Your task to perform on an android device: Show the shopping cart on walmart. Add "amazon basics triple a" to the cart on walmart Image 0: 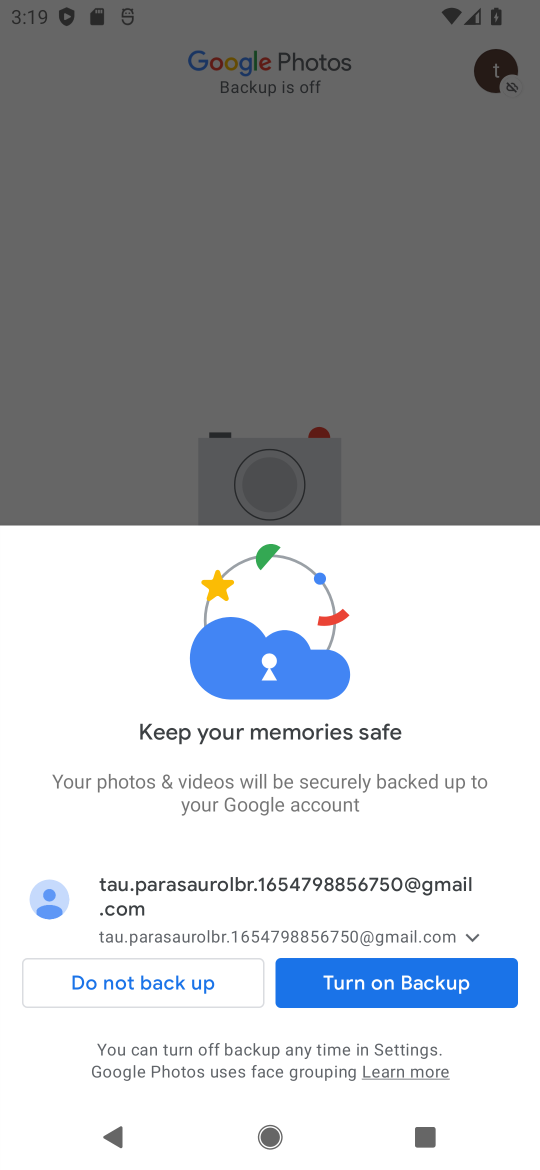
Step 0: press home button
Your task to perform on an android device: Show the shopping cart on walmart. Add "amazon basics triple a" to the cart on walmart Image 1: 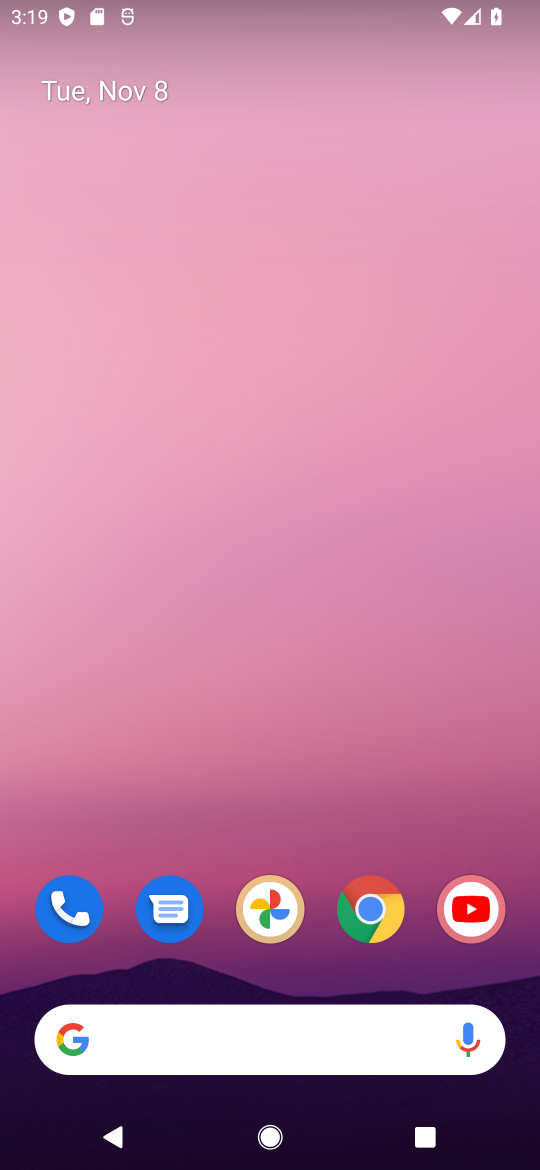
Step 1: click (375, 914)
Your task to perform on an android device: Show the shopping cart on walmart. Add "amazon basics triple a" to the cart on walmart Image 2: 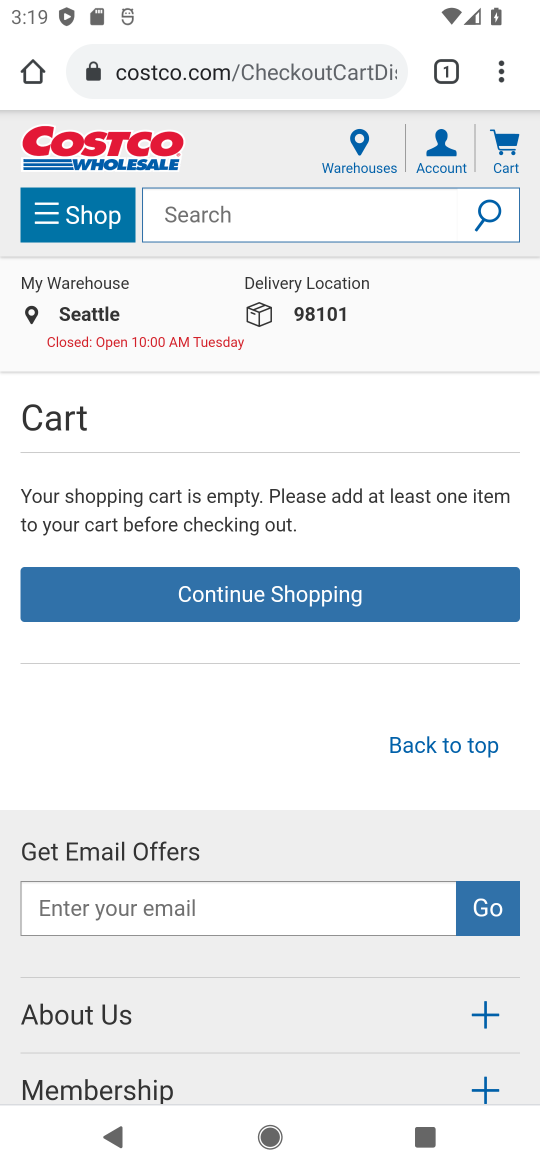
Step 2: click (291, 63)
Your task to perform on an android device: Show the shopping cart on walmart. Add "amazon basics triple a" to the cart on walmart Image 3: 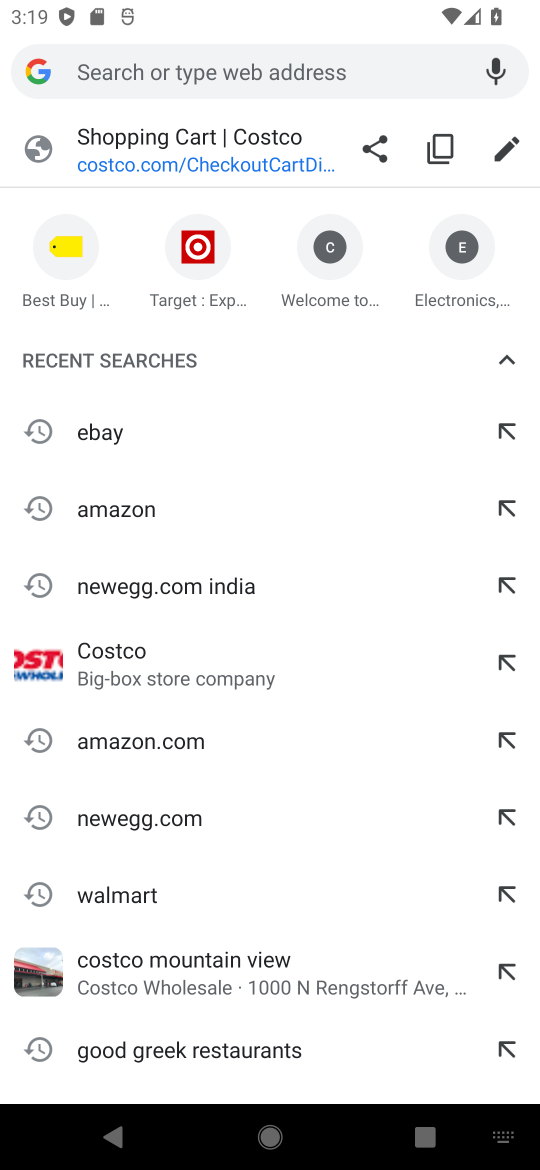
Step 3: click (137, 894)
Your task to perform on an android device: Show the shopping cart on walmart. Add "amazon basics triple a" to the cart on walmart Image 4: 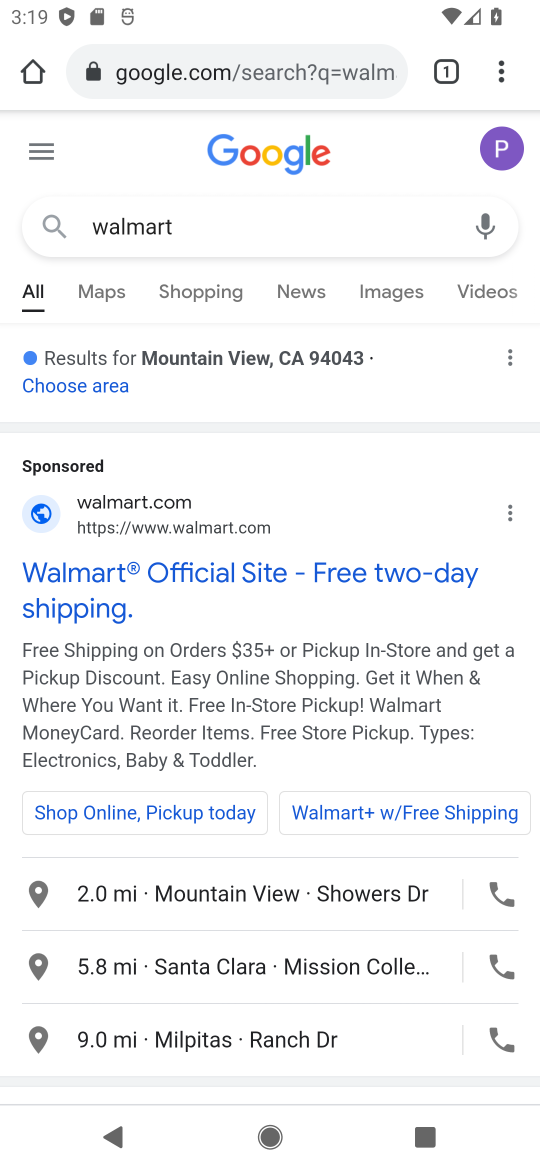
Step 4: click (242, 564)
Your task to perform on an android device: Show the shopping cart on walmart. Add "amazon basics triple a" to the cart on walmart Image 5: 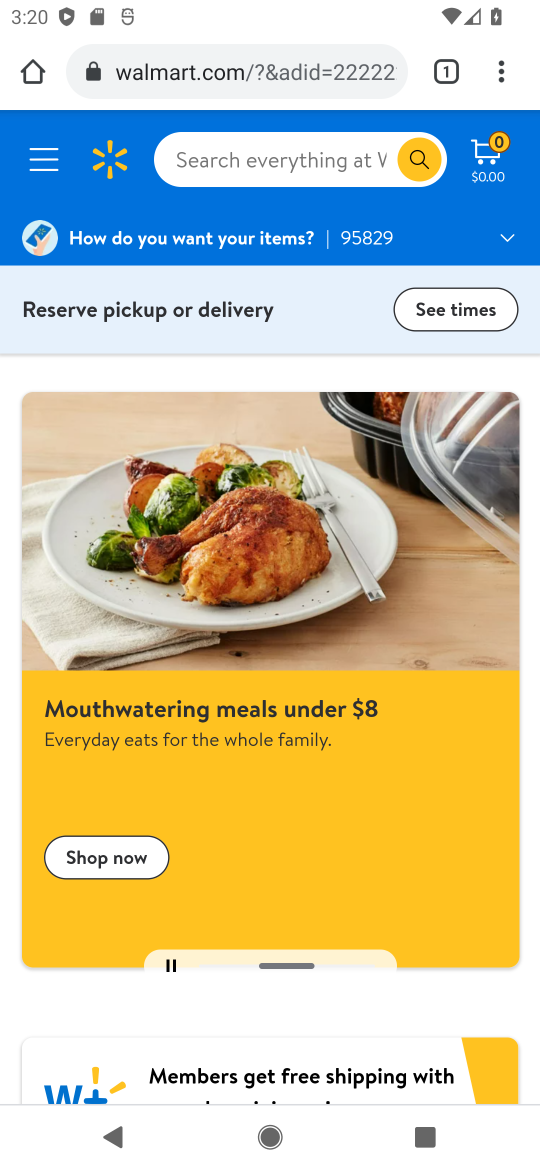
Step 5: click (308, 161)
Your task to perform on an android device: Show the shopping cart on walmart. Add "amazon basics triple a" to the cart on walmart Image 6: 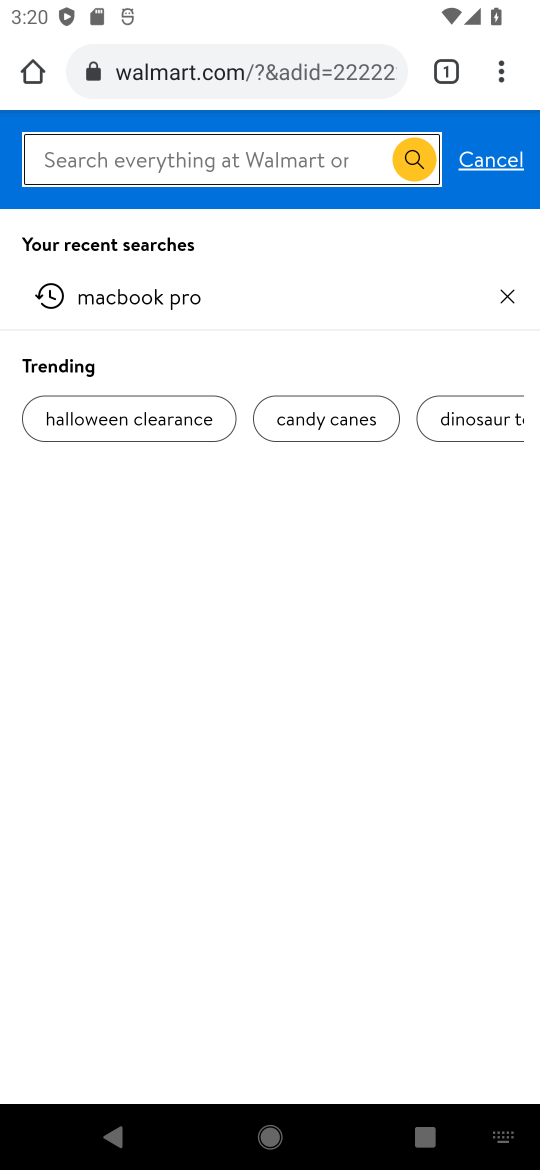
Step 6: type "amazon basics triple a"
Your task to perform on an android device: Show the shopping cart on walmart. Add "amazon basics triple a" to the cart on walmart Image 7: 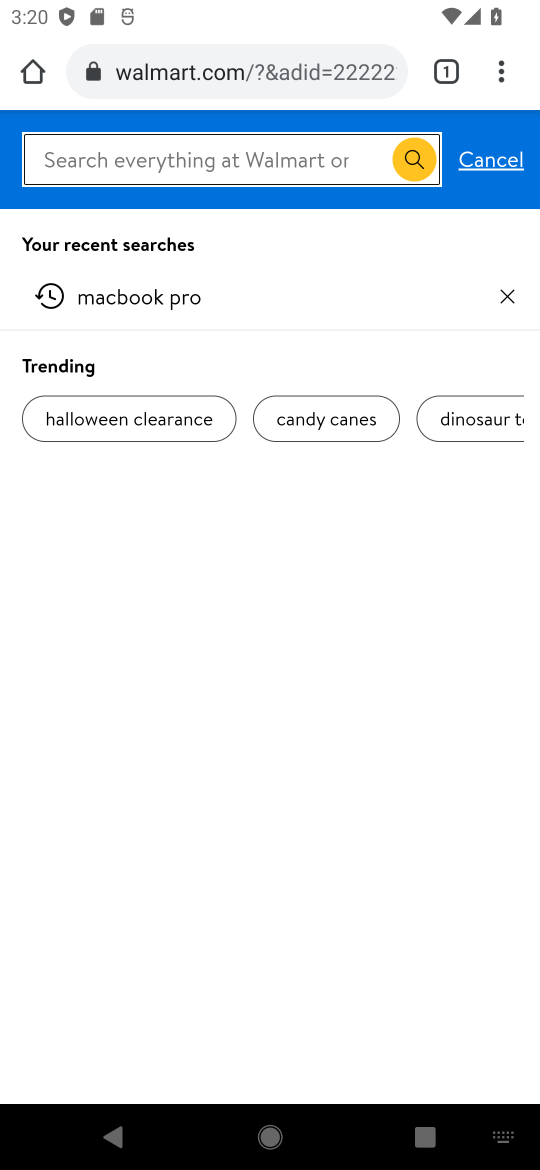
Step 7: press enter
Your task to perform on an android device: Show the shopping cart on walmart. Add "amazon basics triple a" to the cart on walmart Image 8: 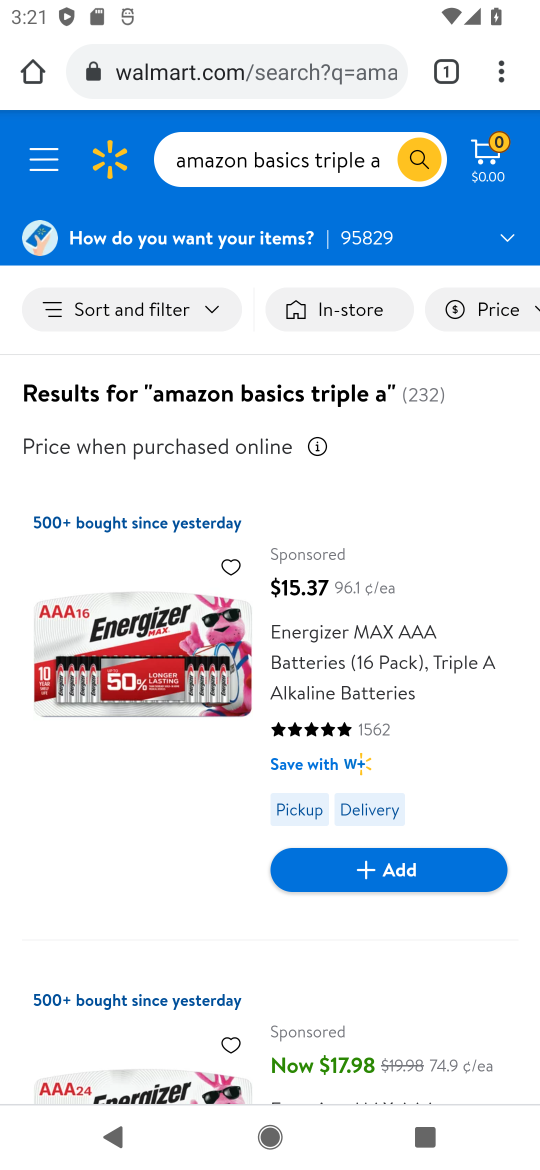
Step 8: task complete